Your task to perform on an android device: change notification settings in the gmail app Image 0: 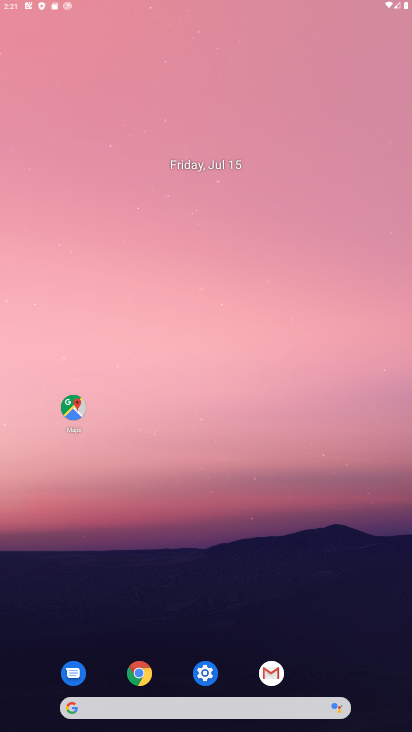
Step 0: press home button
Your task to perform on an android device: change notification settings in the gmail app Image 1: 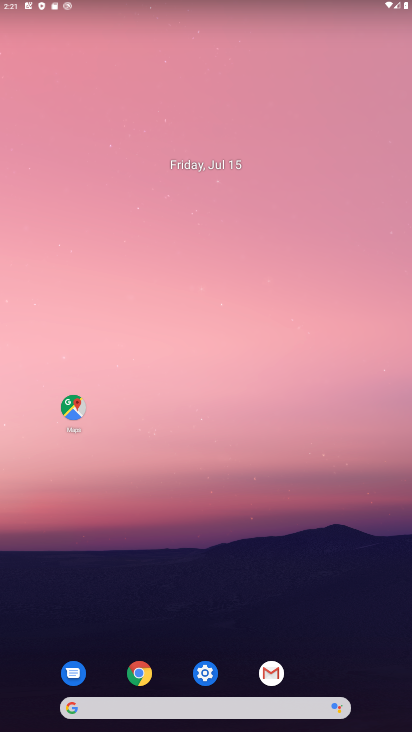
Step 1: click (271, 679)
Your task to perform on an android device: change notification settings in the gmail app Image 2: 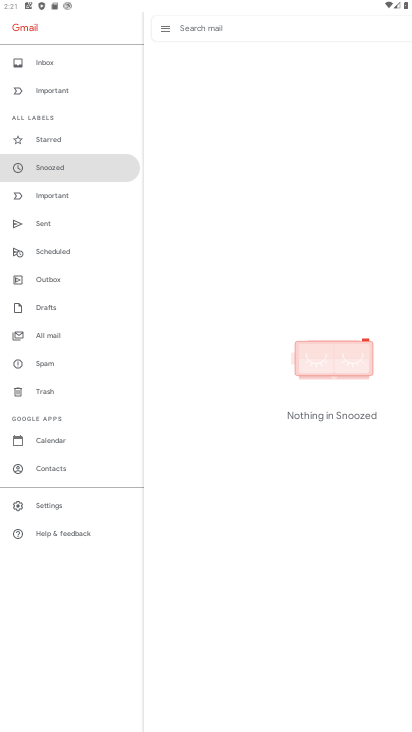
Step 2: click (50, 498)
Your task to perform on an android device: change notification settings in the gmail app Image 3: 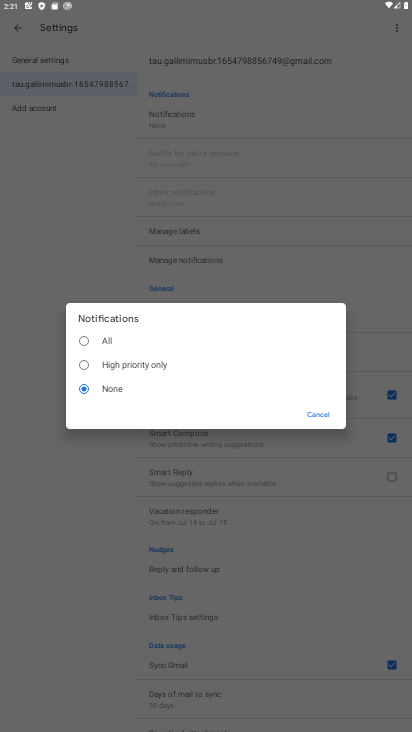
Step 3: click (106, 333)
Your task to perform on an android device: change notification settings in the gmail app Image 4: 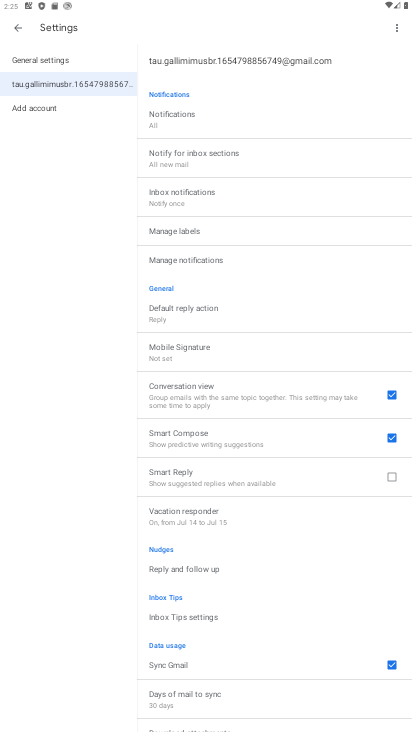
Step 4: task complete